Your task to perform on an android device: Go to sound settings Image 0: 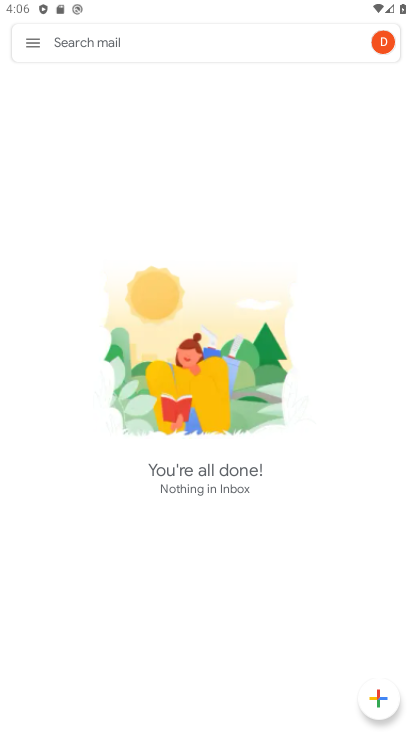
Step 0: press home button
Your task to perform on an android device: Go to sound settings Image 1: 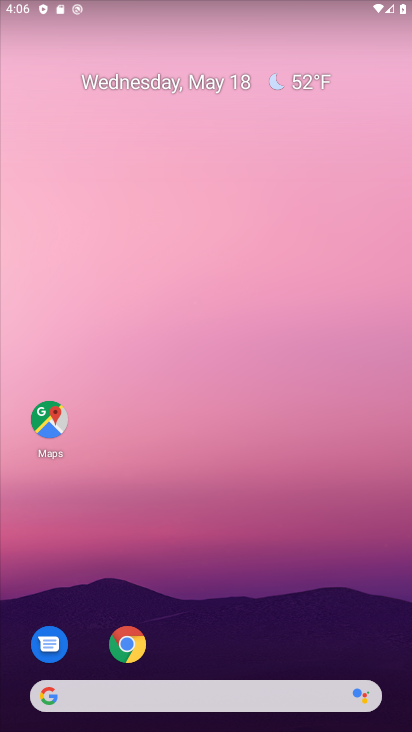
Step 1: drag from (224, 674) to (130, 21)
Your task to perform on an android device: Go to sound settings Image 2: 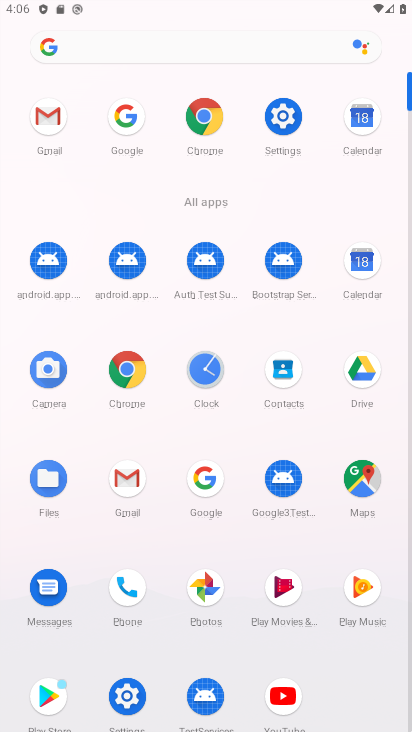
Step 2: click (273, 121)
Your task to perform on an android device: Go to sound settings Image 3: 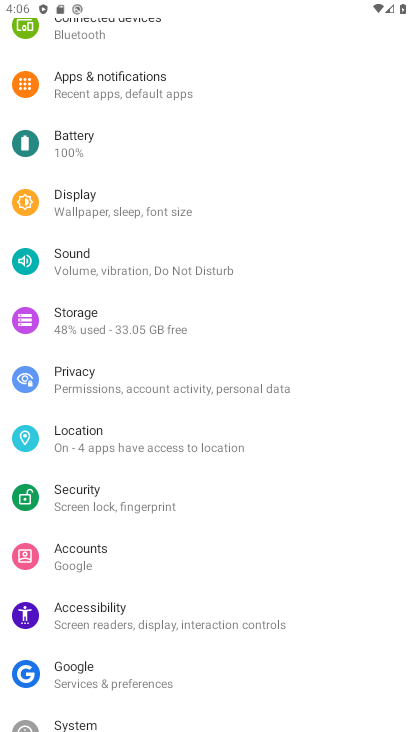
Step 3: click (95, 276)
Your task to perform on an android device: Go to sound settings Image 4: 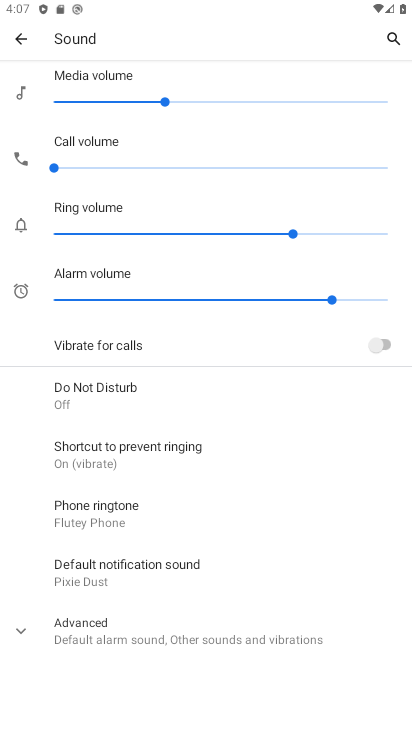
Step 4: task complete